Your task to perform on an android device: star an email in the gmail app Image 0: 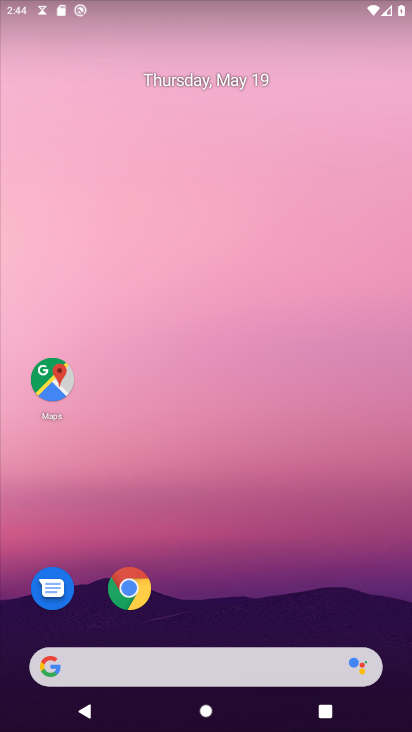
Step 0: drag from (267, 637) to (301, 257)
Your task to perform on an android device: star an email in the gmail app Image 1: 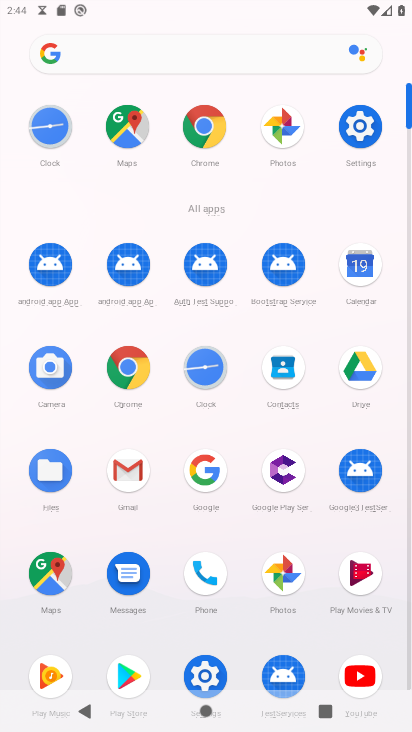
Step 1: click (129, 463)
Your task to perform on an android device: star an email in the gmail app Image 2: 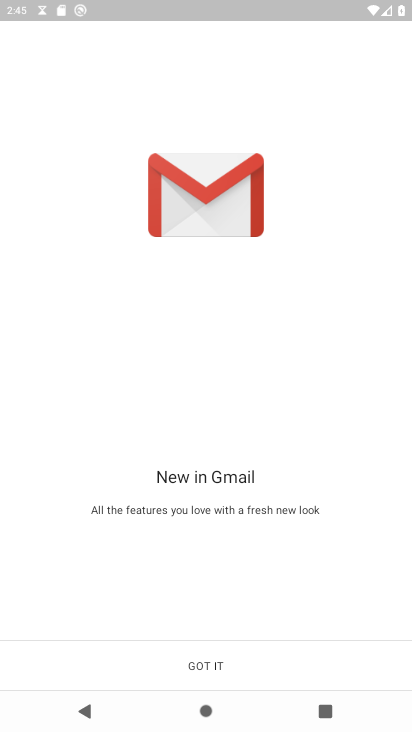
Step 2: click (219, 656)
Your task to perform on an android device: star an email in the gmail app Image 3: 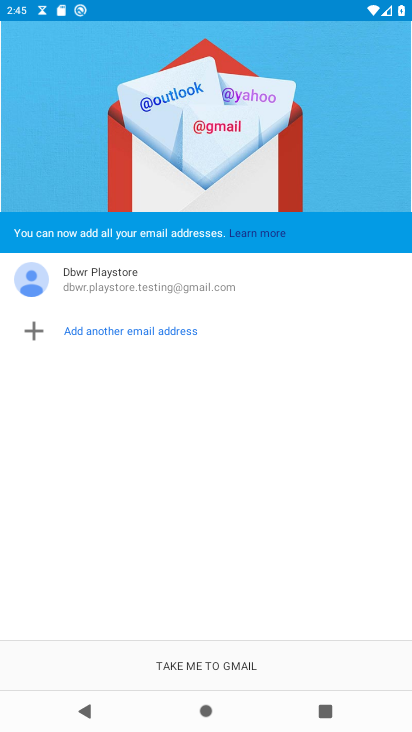
Step 3: click (219, 662)
Your task to perform on an android device: star an email in the gmail app Image 4: 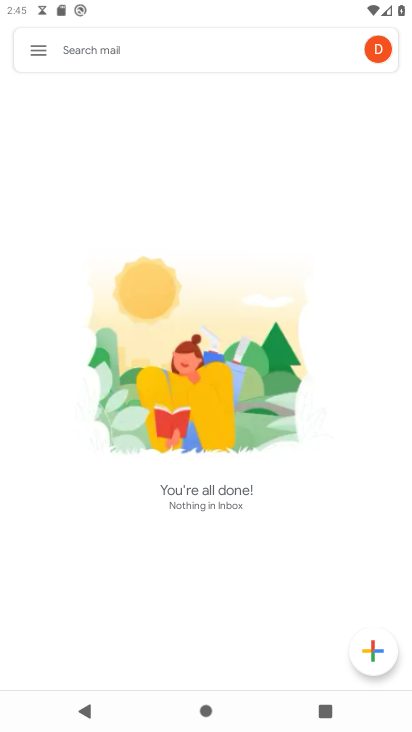
Step 4: click (38, 51)
Your task to perform on an android device: star an email in the gmail app Image 5: 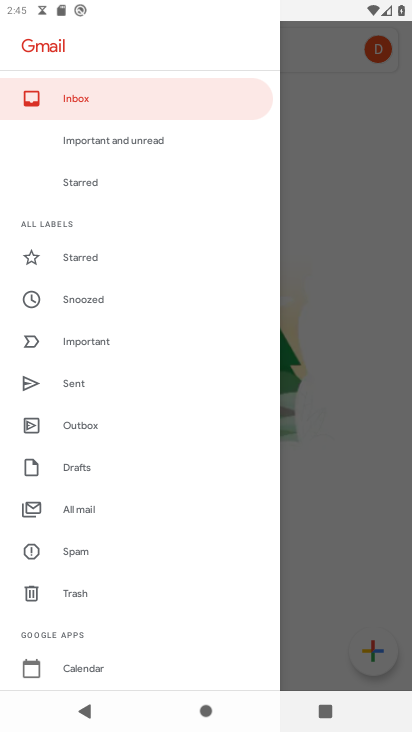
Step 5: click (79, 505)
Your task to perform on an android device: star an email in the gmail app Image 6: 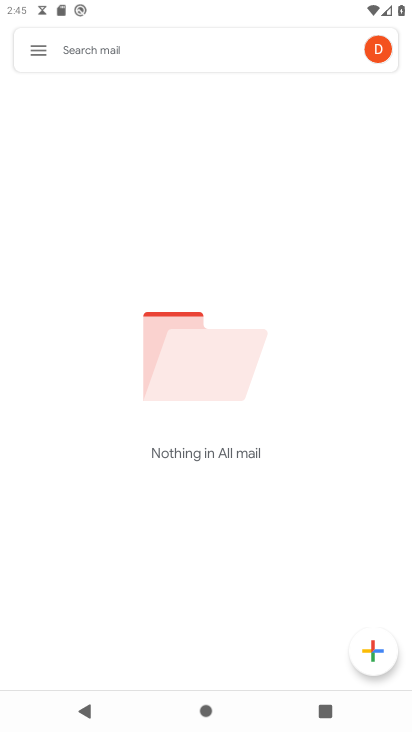
Step 6: task complete